Your task to perform on an android device: Open Google Chrome Image 0: 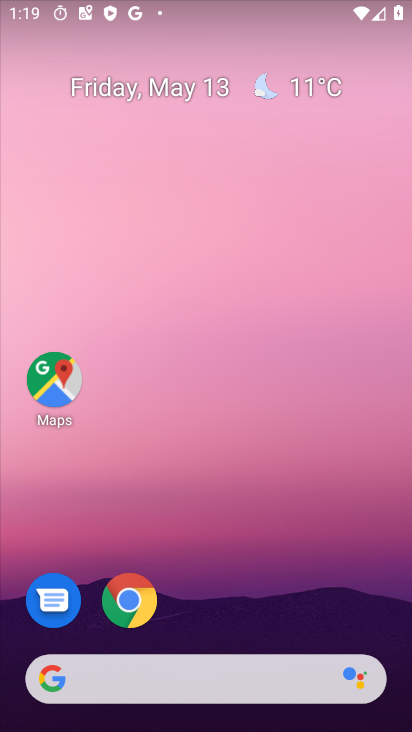
Step 0: drag from (253, 612) to (408, 69)
Your task to perform on an android device: Open Google Chrome Image 1: 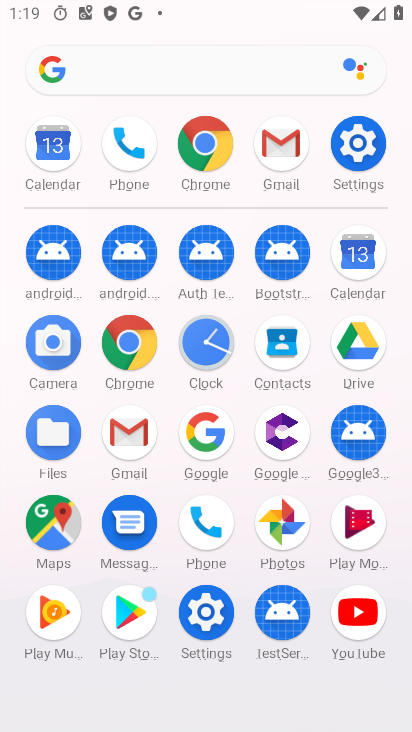
Step 1: click (122, 345)
Your task to perform on an android device: Open Google Chrome Image 2: 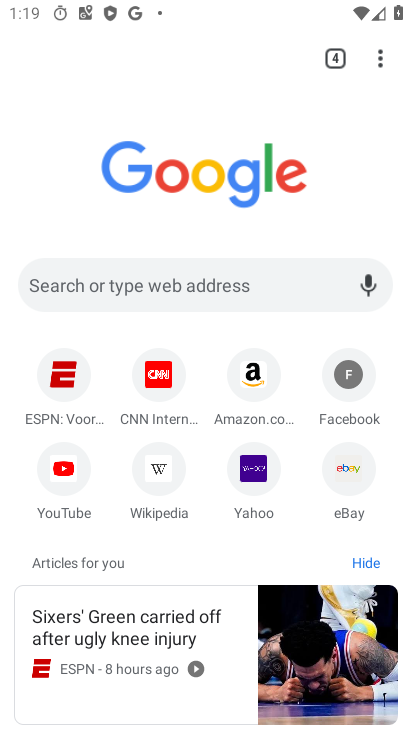
Step 2: task complete